Your task to perform on an android device: visit the assistant section in the google photos Image 0: 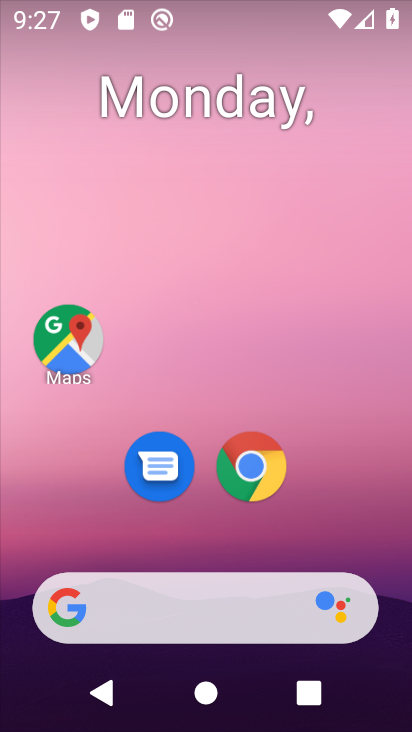
Step 0: drag from (335, 508) to (343, 6)
Your task to perform on an android device: visit the assistant section in the google photos Image 1: 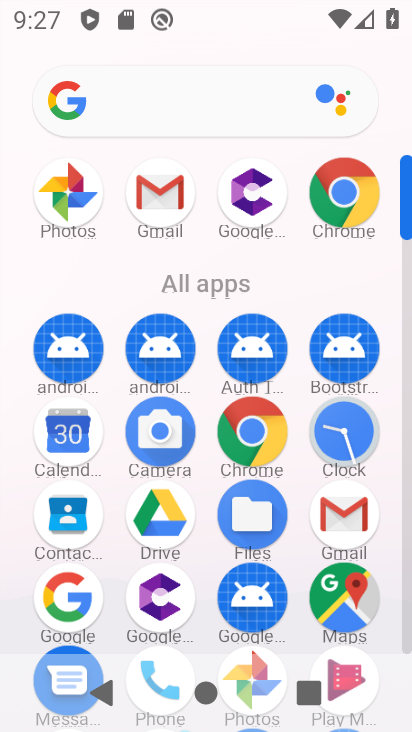
Step 1: click (404, 638)
Your task to perform on an android device: visit the assistant section in the google photos Image 2: 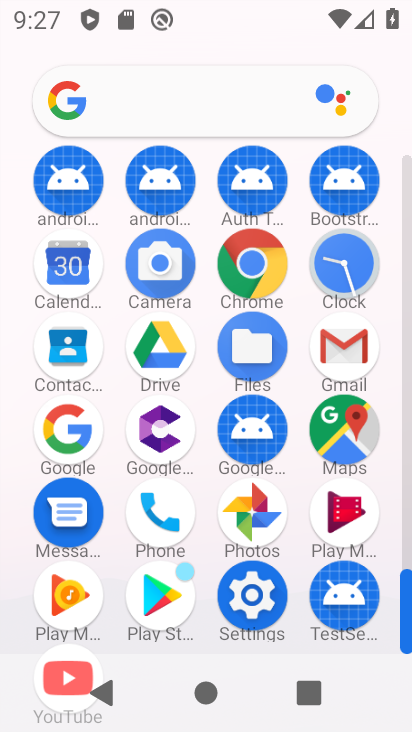
Step 2: click (250, 511)
Your task to perform on an android device: visit the assistant section in the google photos Image 3: 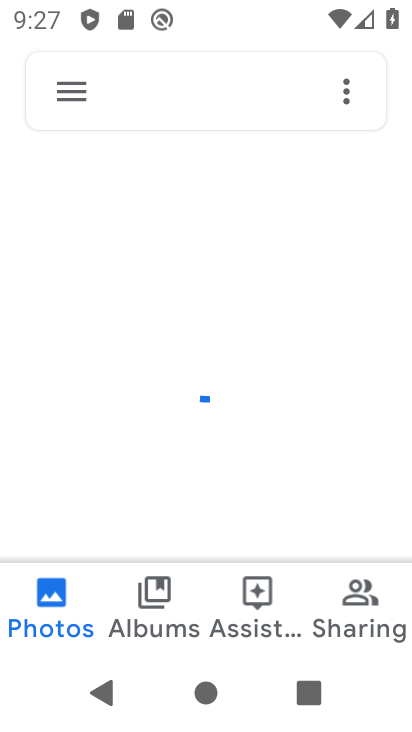
Step 3: click (240, 620)
Your task to perform on an android device: visit the assistant section in the google photos Image 4: 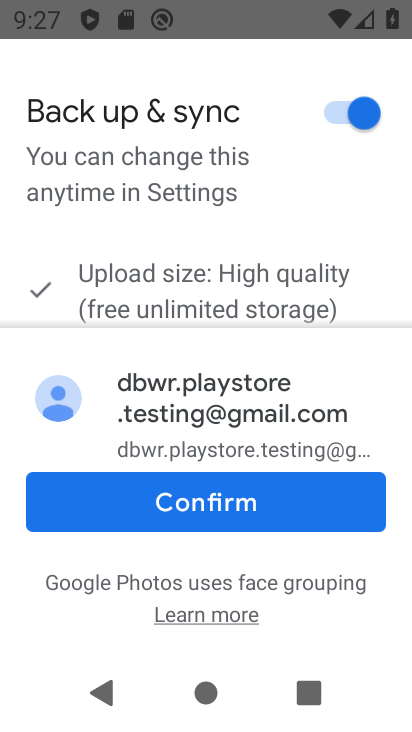
Step 4: click (260, 508)
Your task to perform on an android device: visit the assistant section in the google photos Image 5: 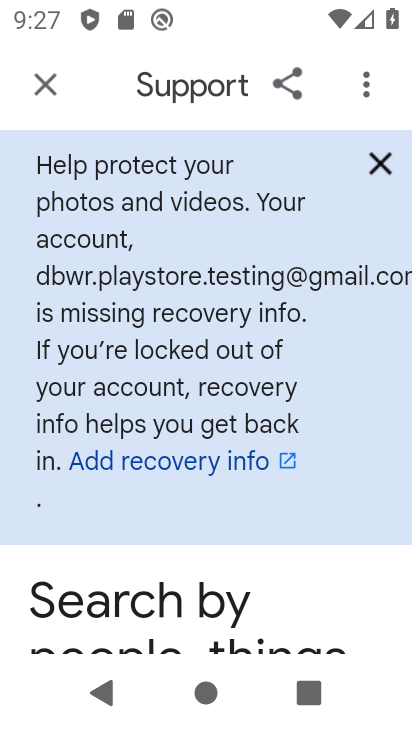
Step 5: click (51, 84)
Your task to perform on an android device: visit the assistant section in the google photos Image 6: 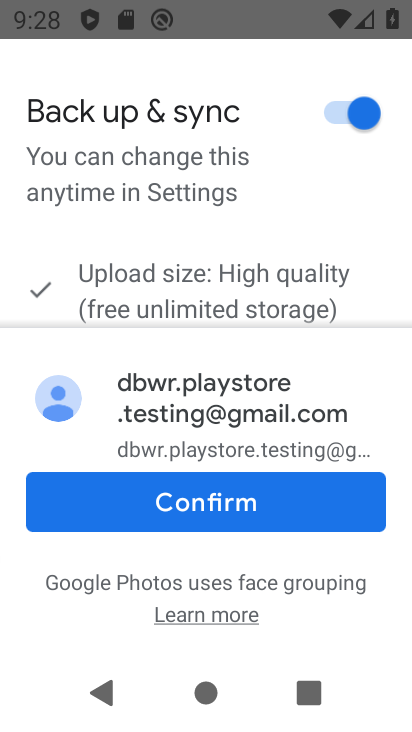
Step 6: click (201, 507)
Your task to perform on an android device: visit the assistant section in the google photos Image 7: 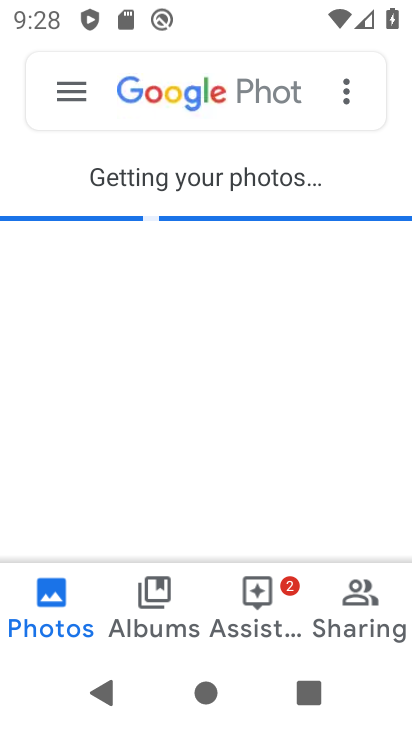
Step 7: click (243, 538)
Your task to perform on an android device: visit the assistant section in the google photos Image 8: 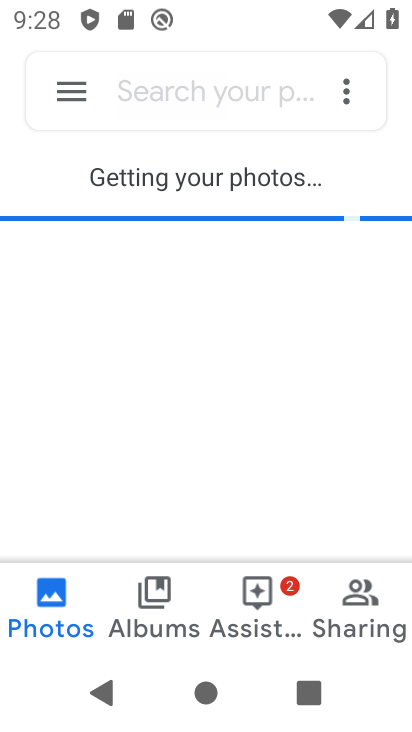
Step 8: click (259, 610)
Your task to perform on an android device: visit the assistant section in the google photos Image 9: 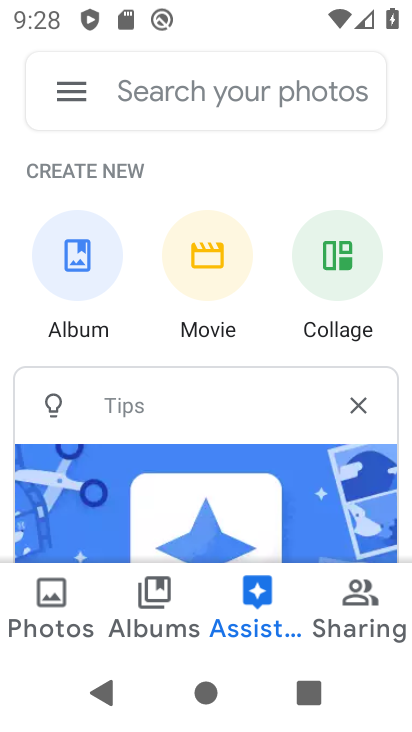
Step 9: press home button
Your task to perform on an android device: visit the assistant section in the google photos Image 10: 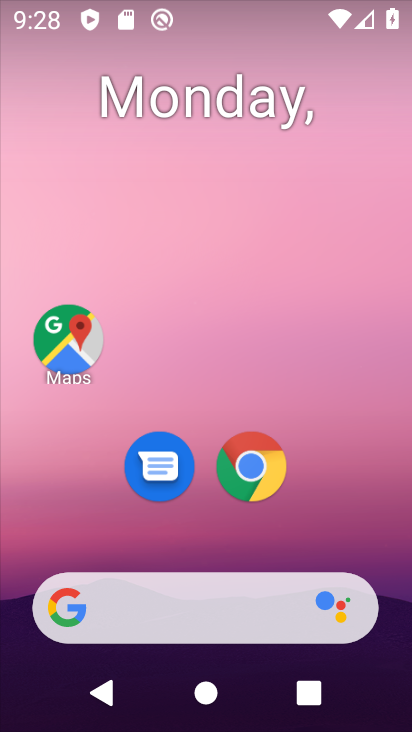
Step 10: drag from (341, 531) to (308, 58)
Your task to perform on an android device: visit the assistant section in the google photos Image 11: 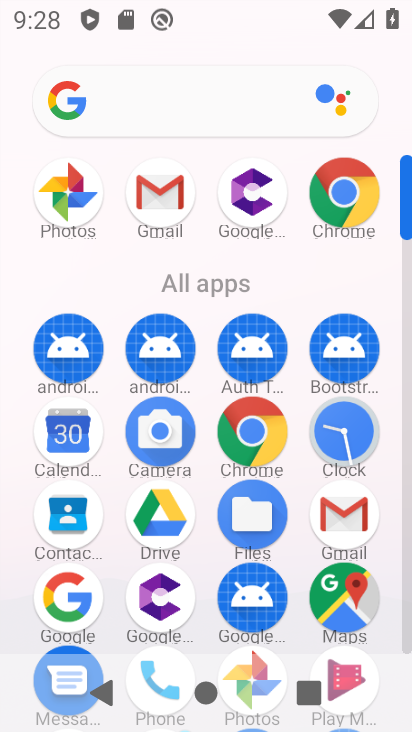
Step 11: click (403, 641)
Your task to perform on an android device: visit the assistant section in the google photos Image 12: 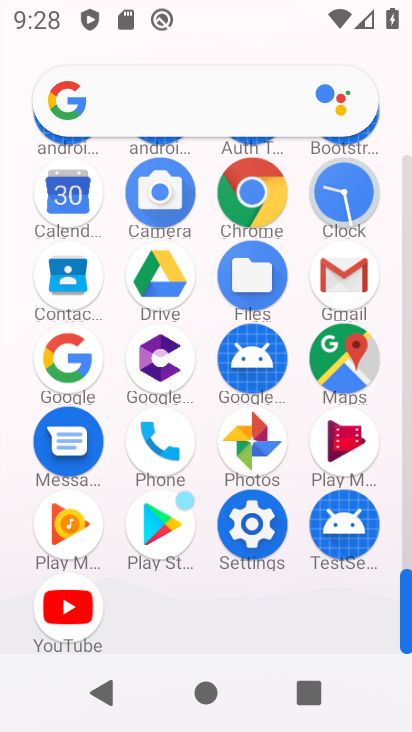
Step 12: click (244, 454)
Your task to perform on an android device: visit the assistant section in the google photos Image 13: 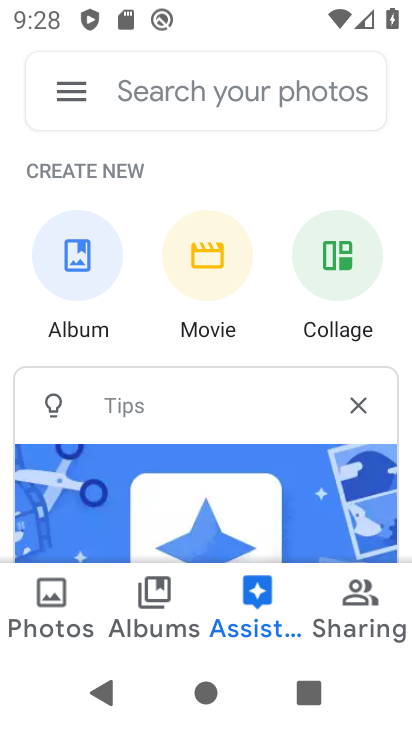
Step 13: task complete